Your task to perform on an android device: Open notification settings Image 0: 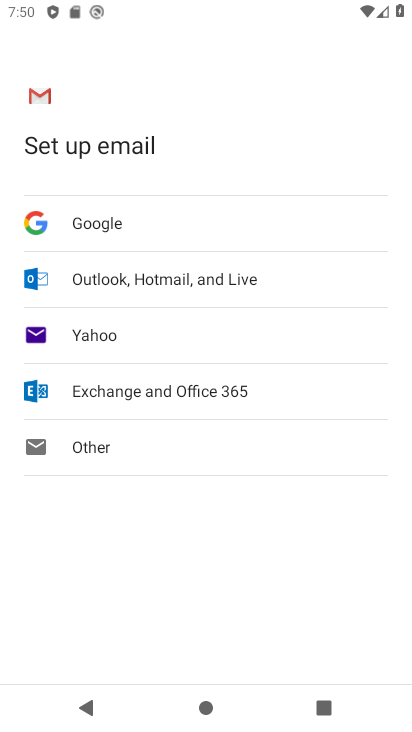
Step 0: press home button
Your task to perform on an android device: Open notification settings Image 1: 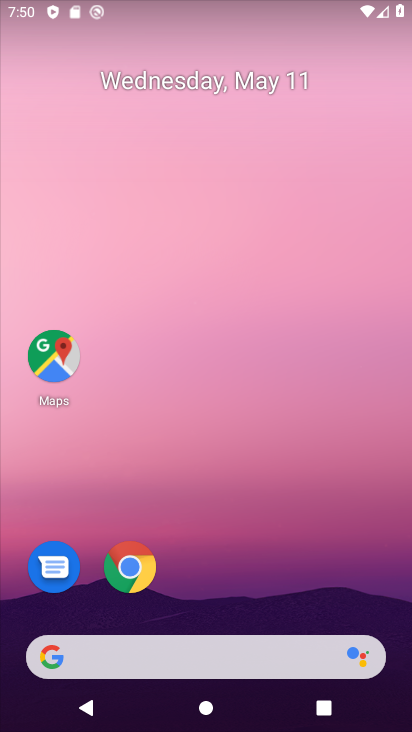
Step 1: drag from (210, 619) to (211, 18)
Your task to perform on an android device: Open notification settings Image 2: 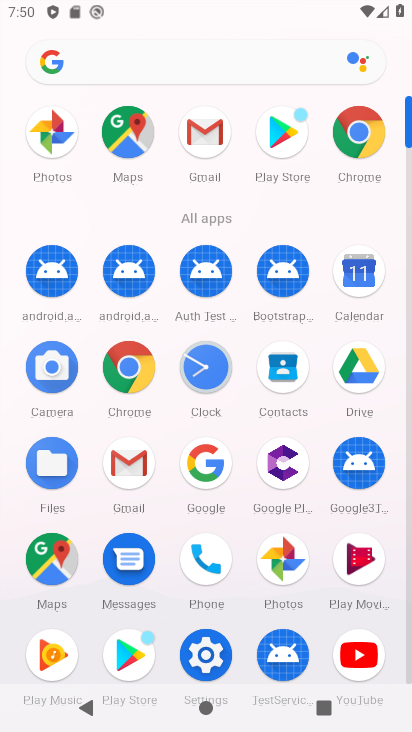
Step 2: click (201, 650)
Your task to perform on an android device: Open notification settings Image 3: 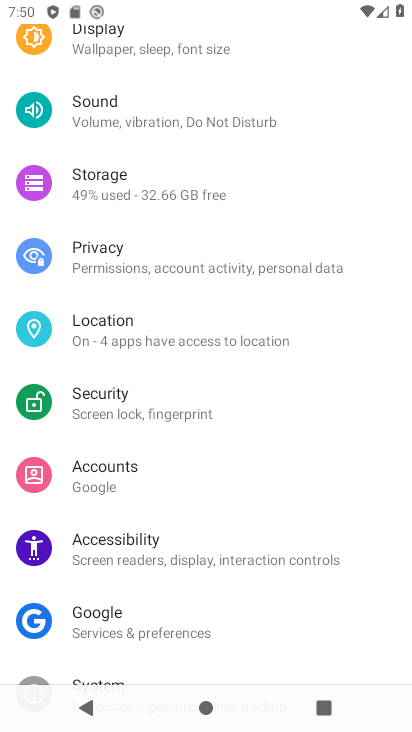
Step 3: drag from (258, 235) to (229, 527)
Your task to perform on an android device: Open notification settings Image 4: 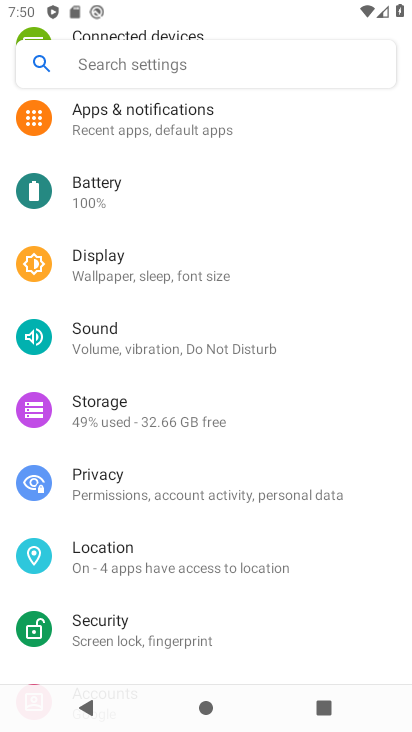
Step 4: click (162, 132)
Your task to perform on an android device: Open notification settings Image 5: 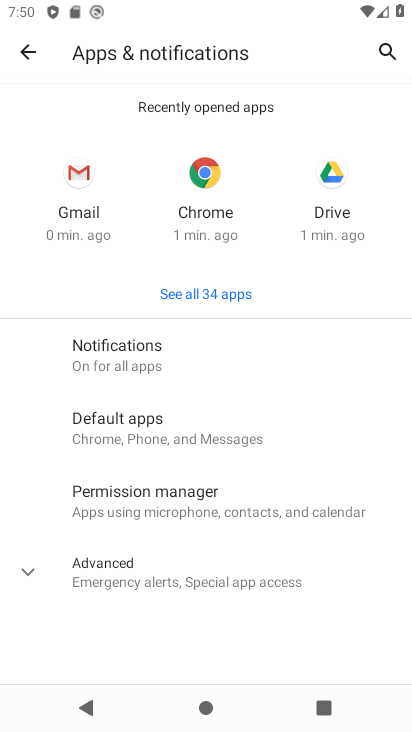
Step 5: click (138, 362)
Your task to perform on an android device: Open notification settings Image 6: 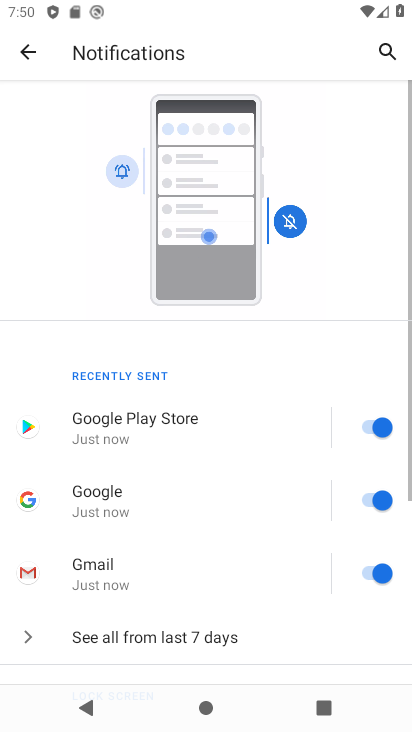
Step 6: task complete